Your task to perform on an android device: Clear the shopping cart on costco.com. Search for "dell alienware" on costco.com, select the first entry, add it to the cart, then select checkout. Image 0: 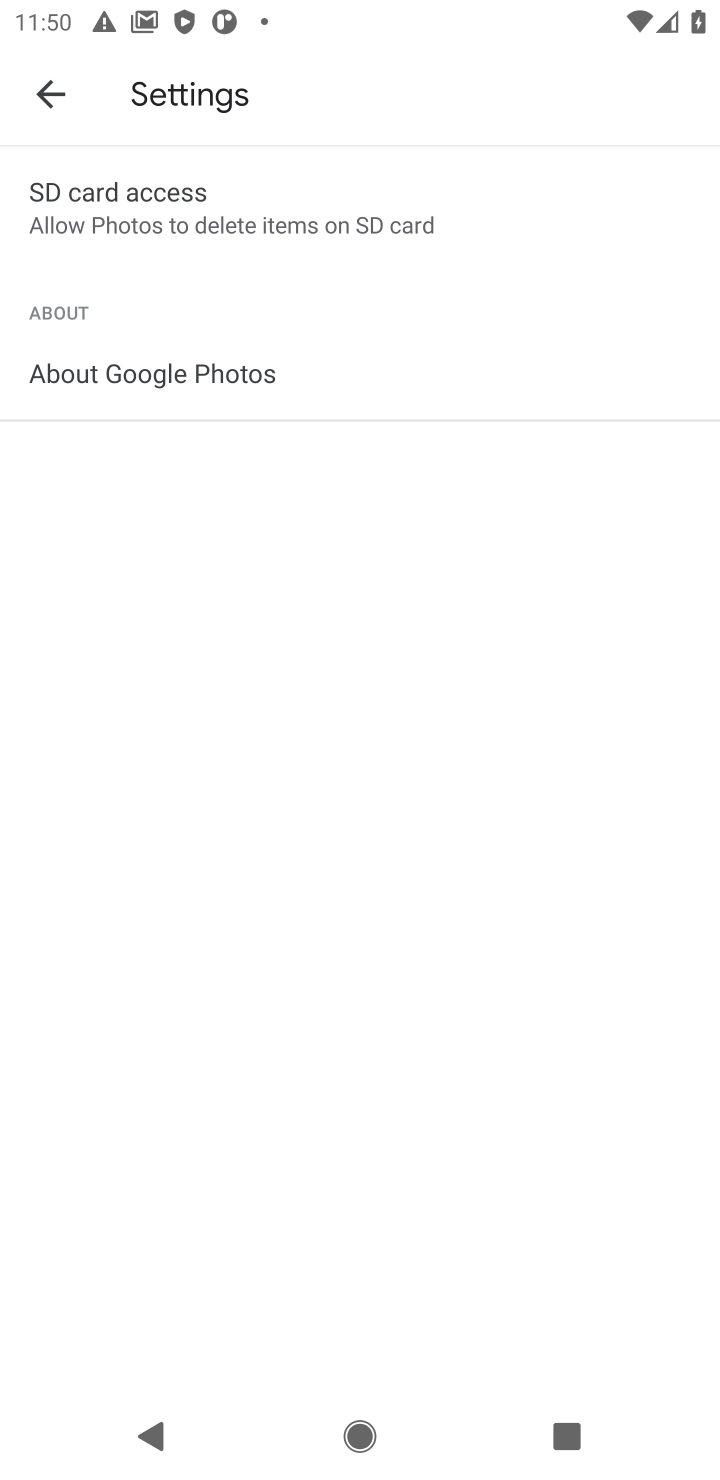
Step 0: press home button
Your task to perform on an android device: Clear the shopping cart on costco.com. Search for "dell alienware" on costco.com, select the first entry, add it to the cart, then select checkout. Image 1: 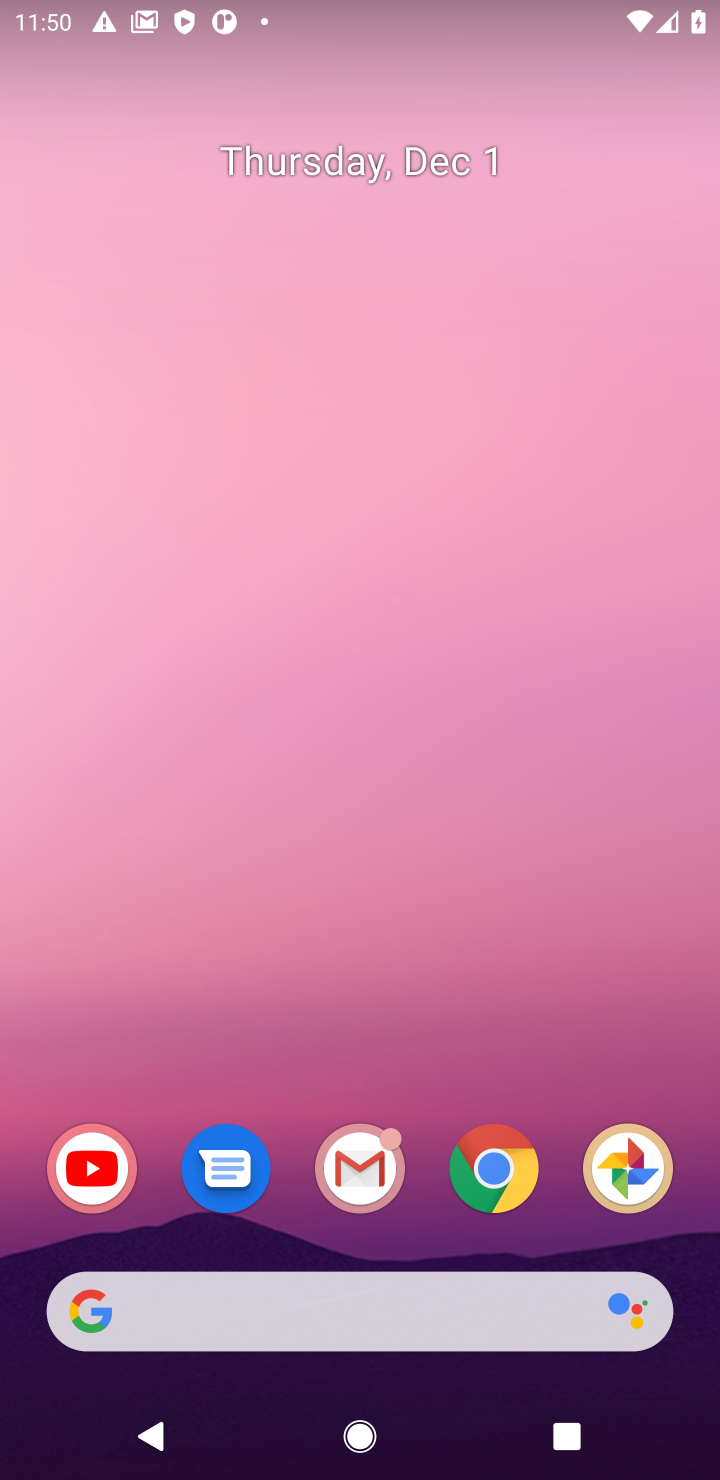
Step 1: click (502, 1170)
Your task to perform on an android device: Clear the shopping cart on costco.com. Search for "dell alienware" on costco.com, select the first entry, add it to the cart, then select checkout. Image 2: 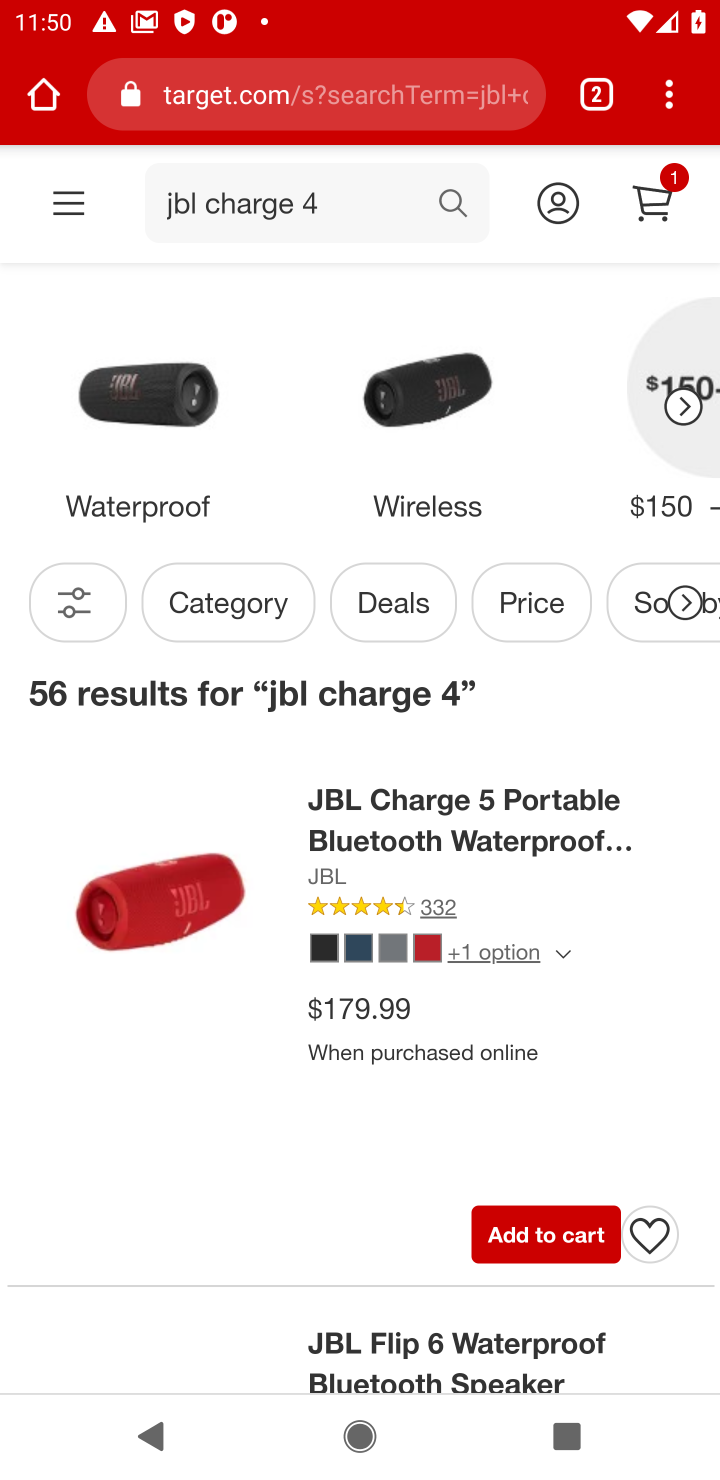
Step 2: click (294, 102)
Your task to perform on an android device: Clear the shopping cart on costco.com. Search for "dell alienware" on costco.com, select the first entry, add it to the cart, then select checkout. Image 3: 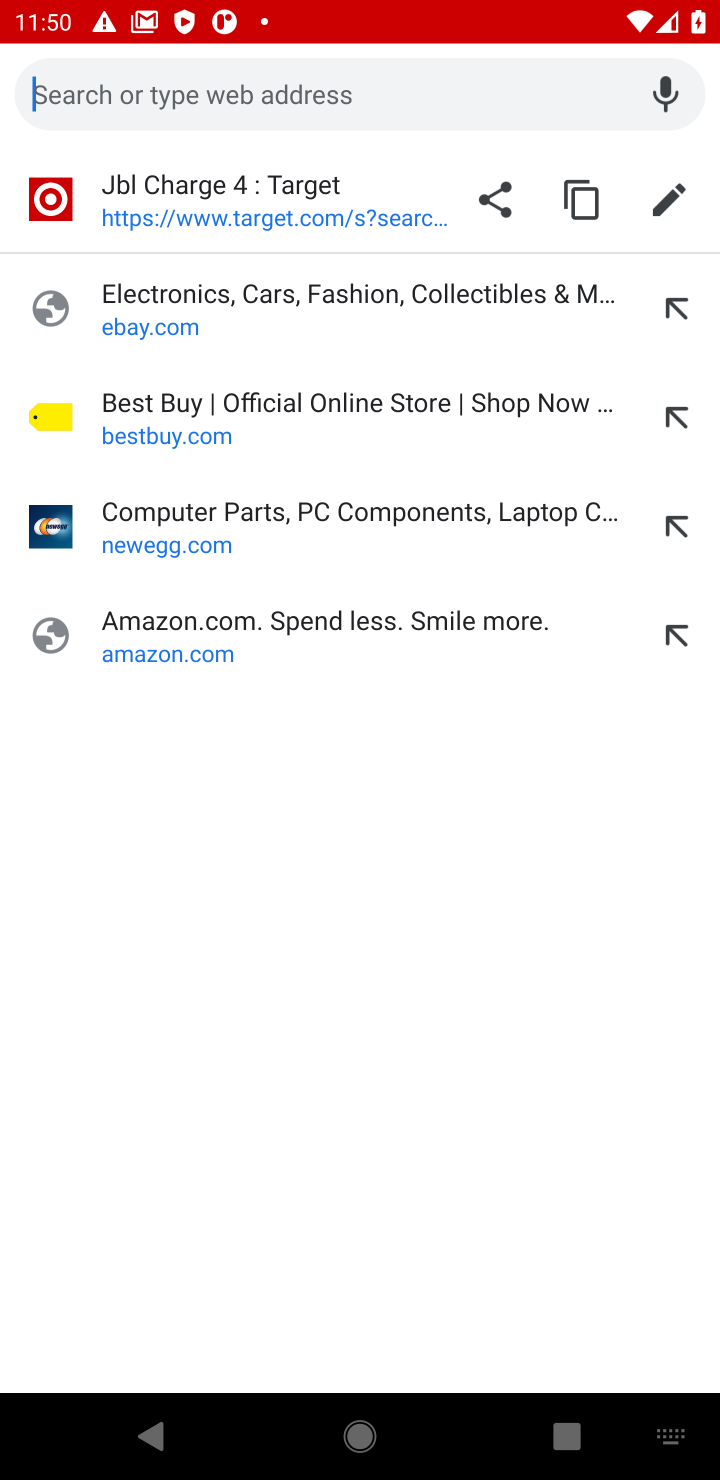
Step 3: type "costco.com"
Your task to perform on an android device: Clear the shopping cart on costco.com. Search for "dell alienware" on costco.com, select the first entry, add it to the cart, then select checkout. Image 4: 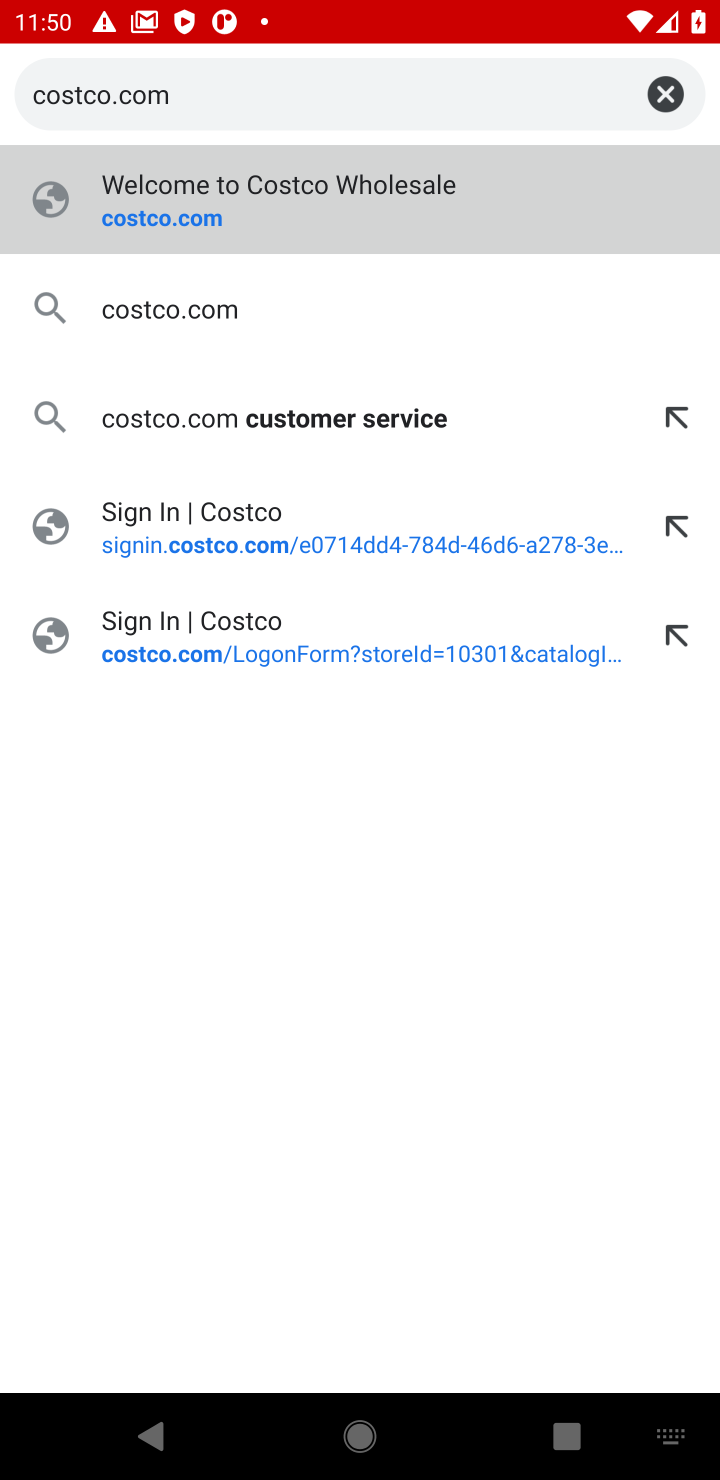
Step 4: click (121, 232)
Your task to perform on an android device: Clear the shopping cart on costco.com. Search for "dell alienware" on costco.com, select the first entry, add it to the cart, then select checkout. Image 5: 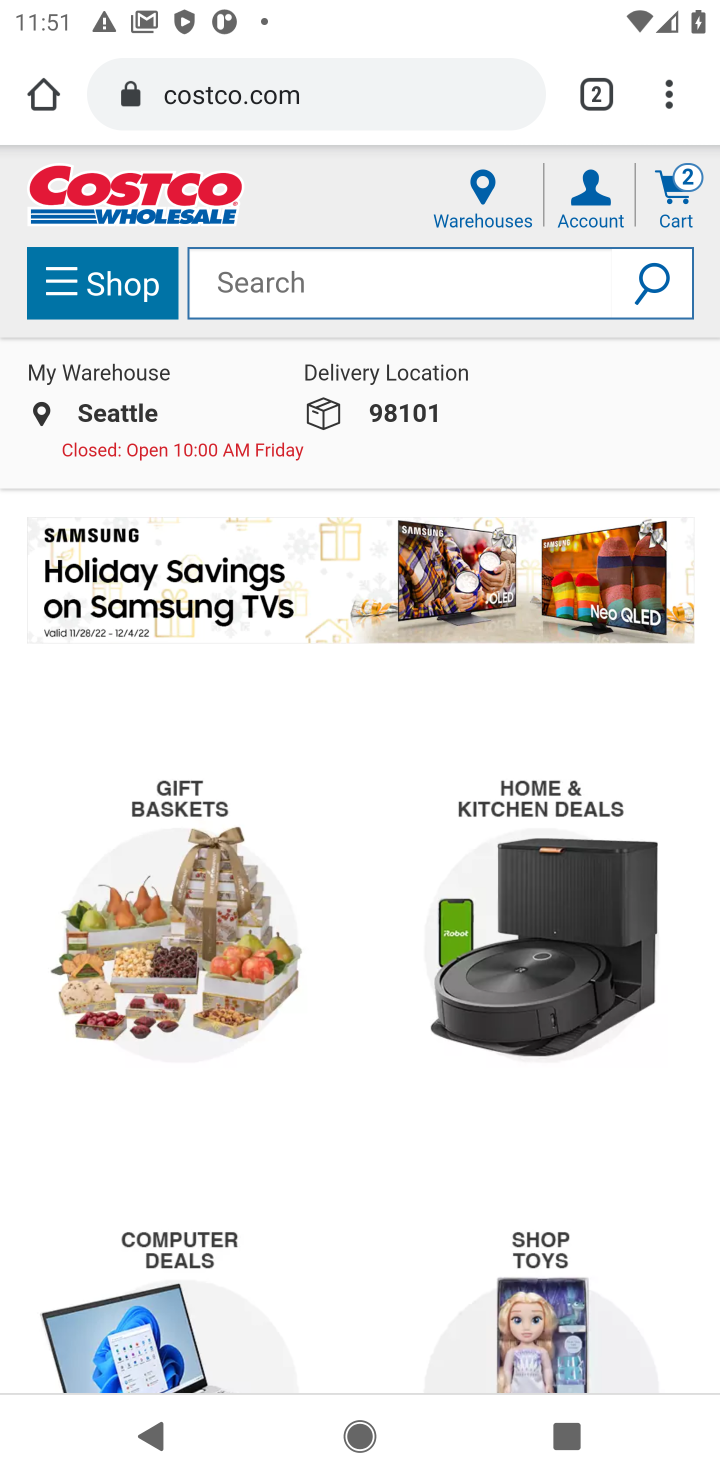
Step 5: click (684, 212)
Your task to perform on an android device: Clear the shopping cart on costco.com. Search for "dell alienware" on costco.com, select the first entry, add it to the cart, then select checkout. Image 6: 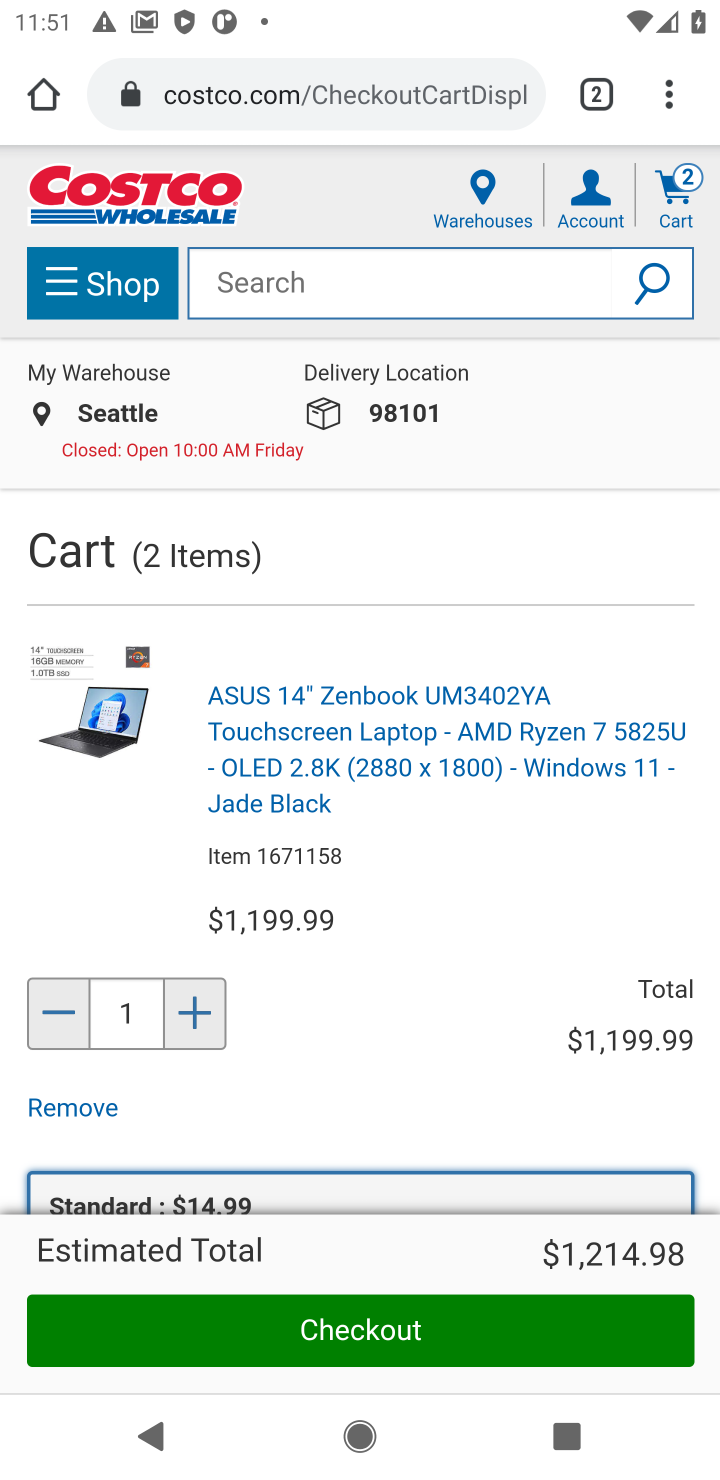
Step 6: drag from (479, 923) to (428, 478)
Your task to perform on an android device: Clear the shopping cart on costco.com. Search for "dell alienware" on costco.com, select the first entry, add it to the cart, then select checkout. Image 7: 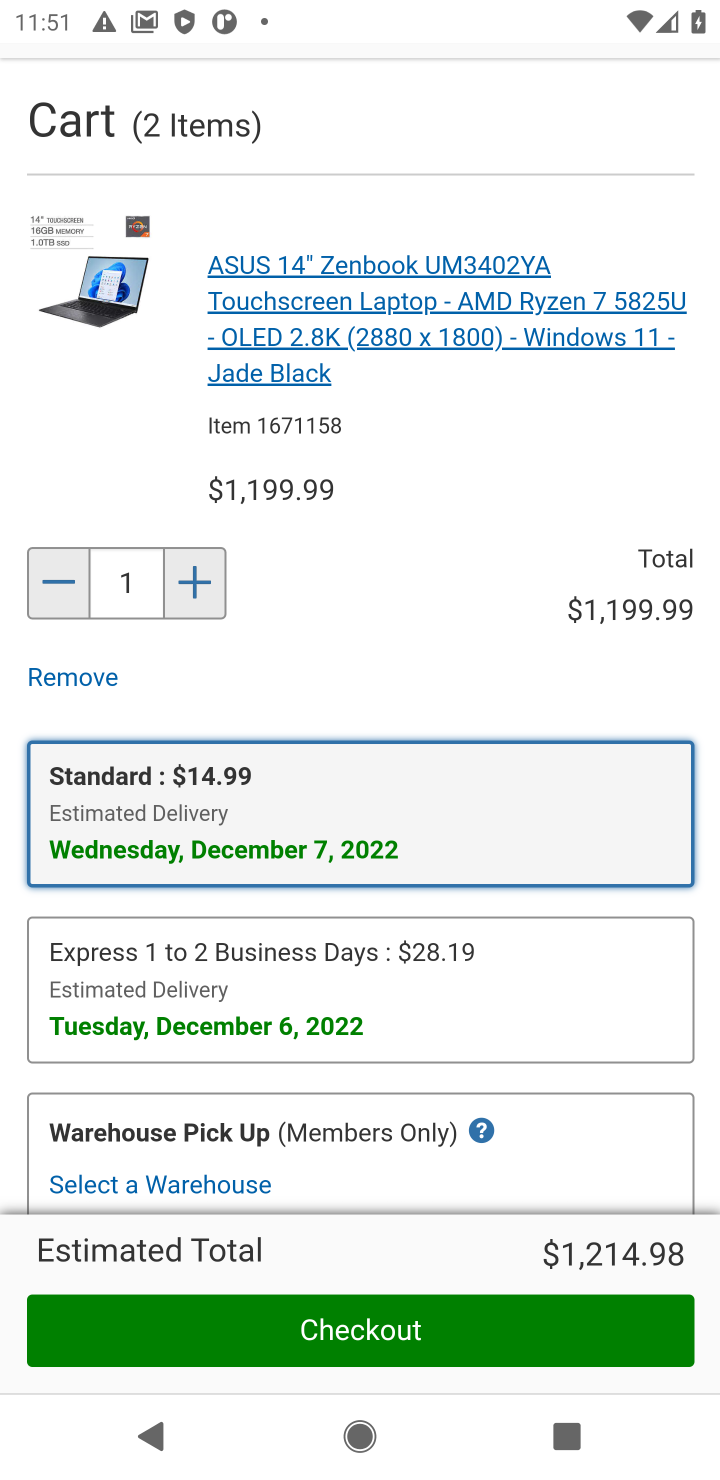
Step 7: drag from (428, 965) to (438, 552)
Your task to perform on an android device: Clear the shopping cart on costco.com. Search for "dell alienware" on costco.com, select the first entry, add it to the cart, then select checkout. Image 8: 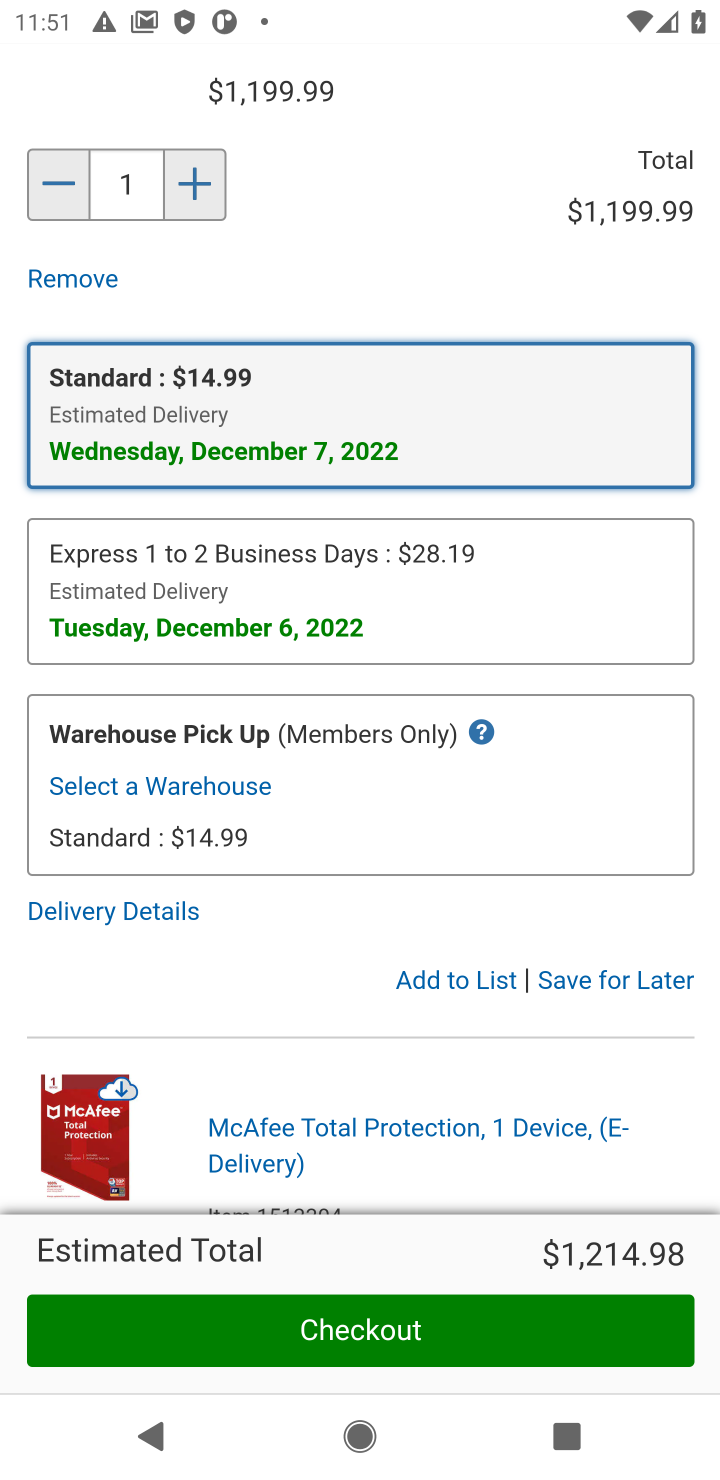
Step 8: click (601, 977)
Your task to perform on an android device: Clear the shopping cart on costco.com. Search for "dell alienware" on costco.com, select the first entry, add it to the cart, then select checkout. Image 9: 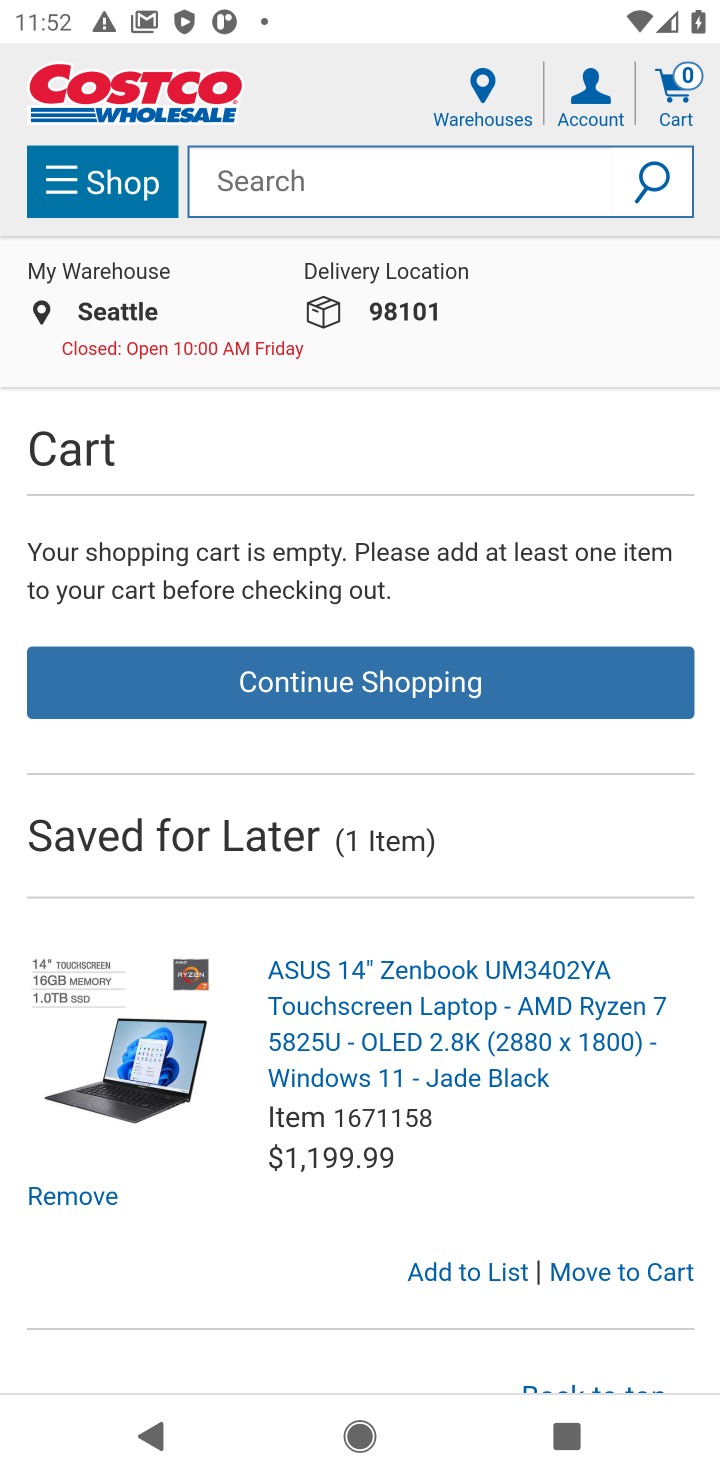
Step 9: click (352, 190)
Your task to perform on an android device: Clear the shopping cart on costco.com. Search for "dell alienware" on costco.com, select the first entry, add it to the cart, then select checkout. Image 10: 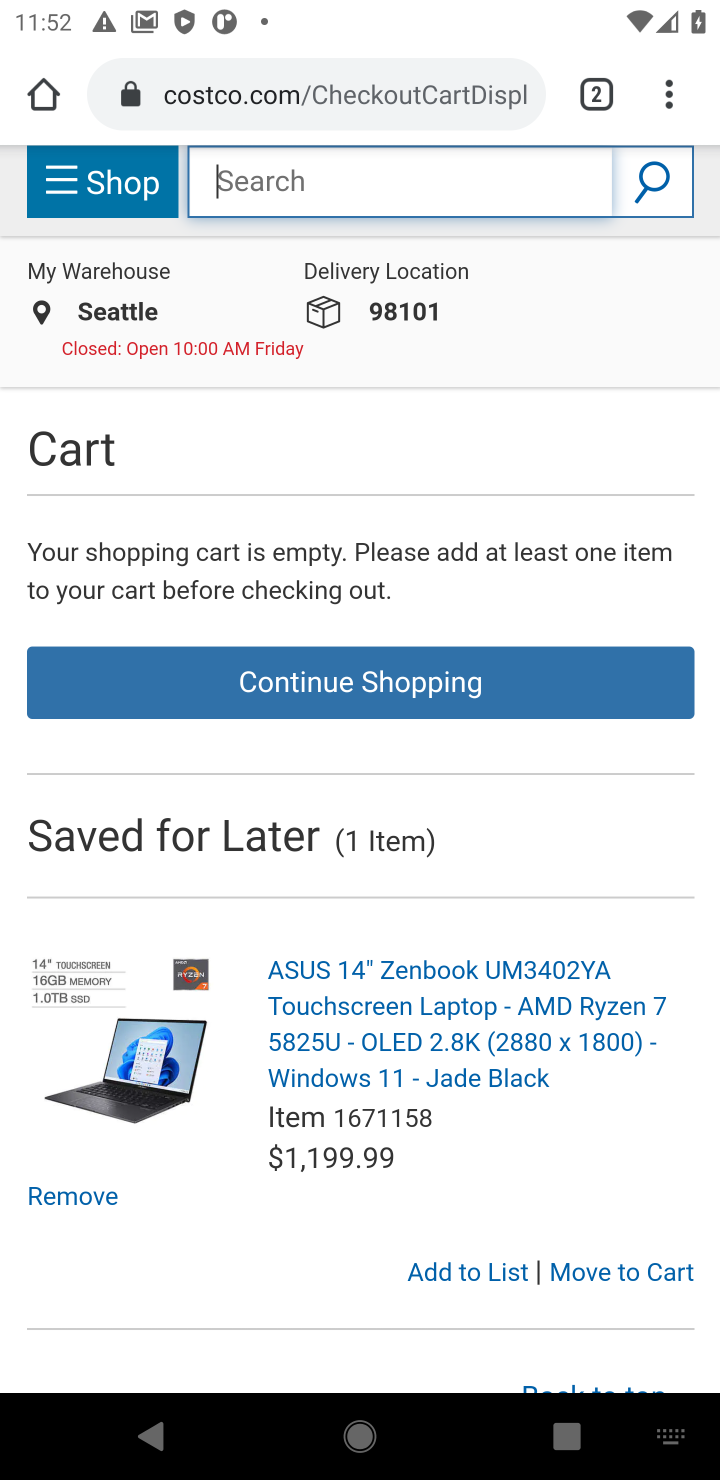
Step 10: type "dell alienware"
Your task to perform on an android device: Clear the shopping cart on costco.com. Search for "dell alienware" on costco.com, select the first entry, add it to the cart, then select checkout. Image 11: 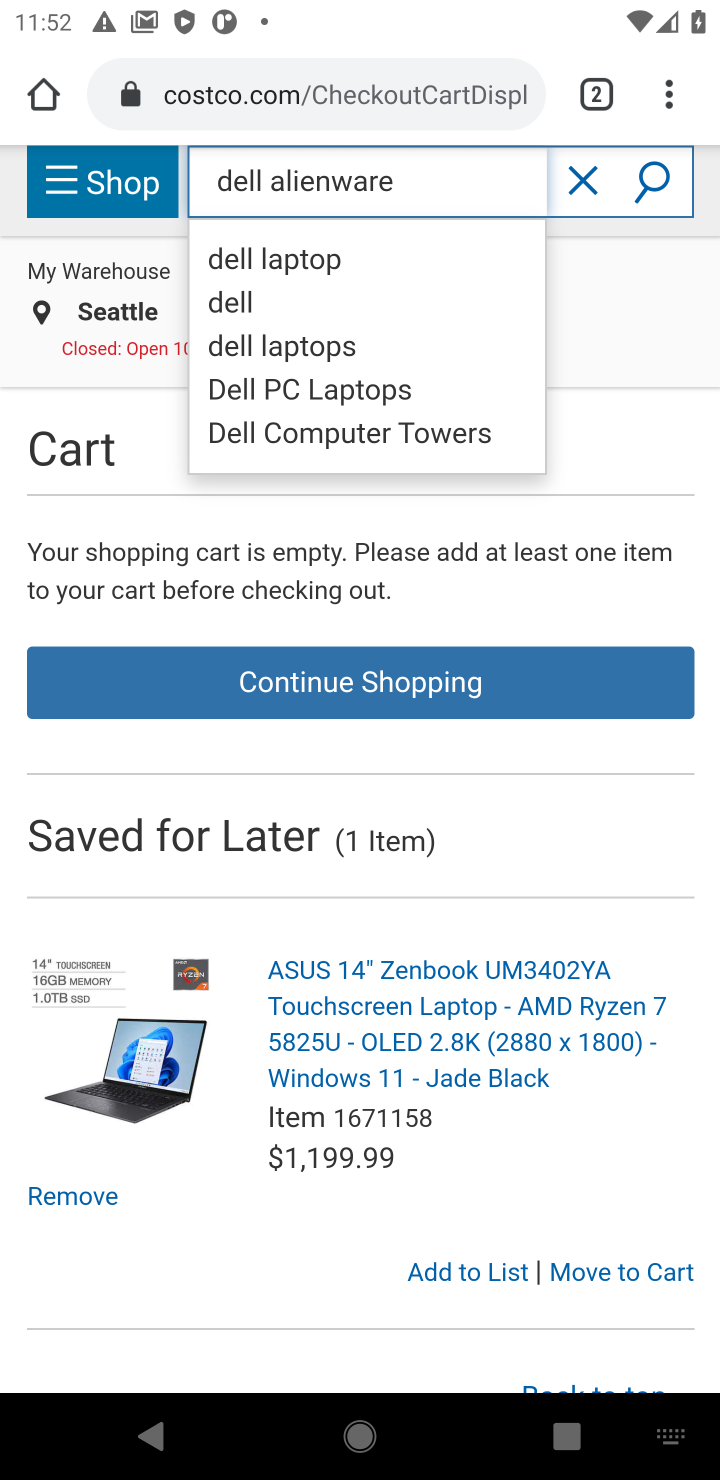
Step 11: click (653, 182)
Your task to perform on an android device: Clear the shopping cart on costco.com. Search for "dell alienware" on costco.com, select the first entry, add it to the cart, then select checkout. Image 12: 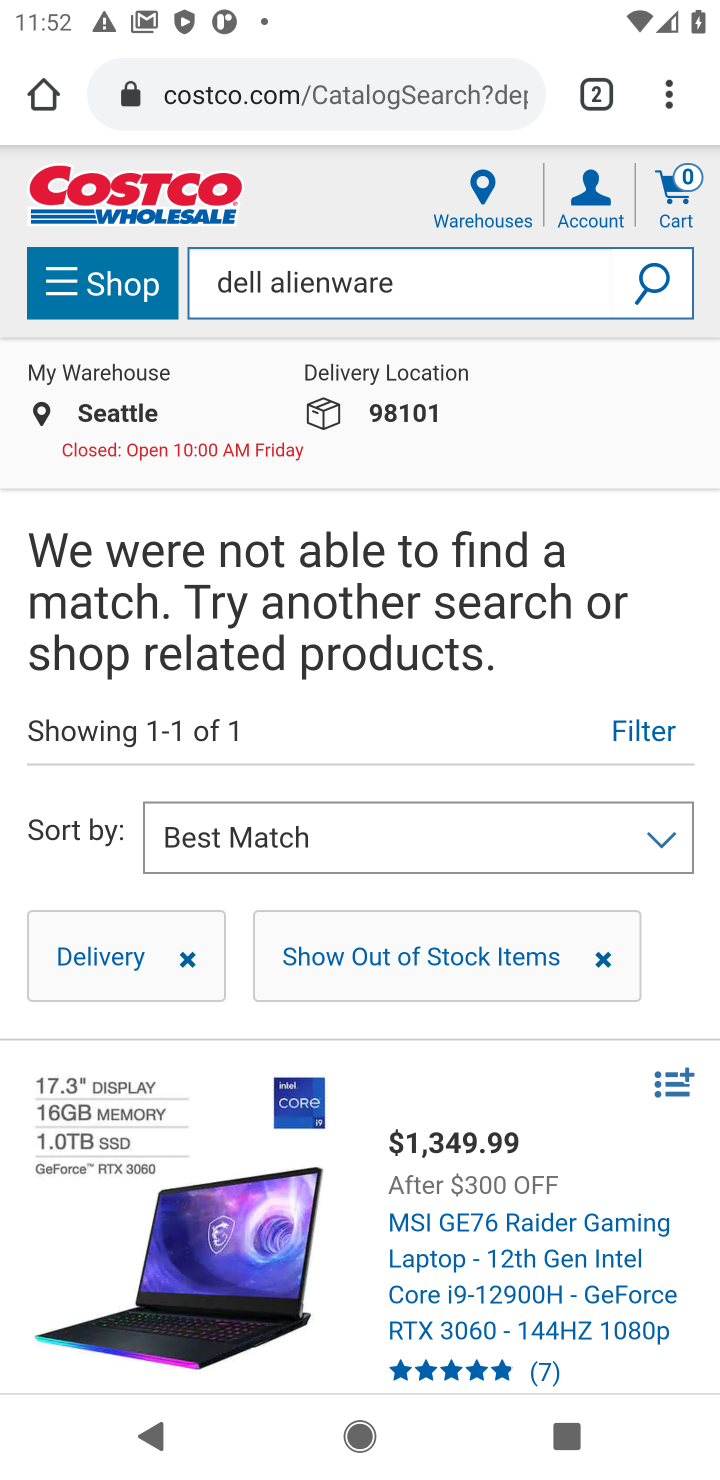
Step 12: task complete